Your task to perform on an android device: change text size in settings app Image 0: 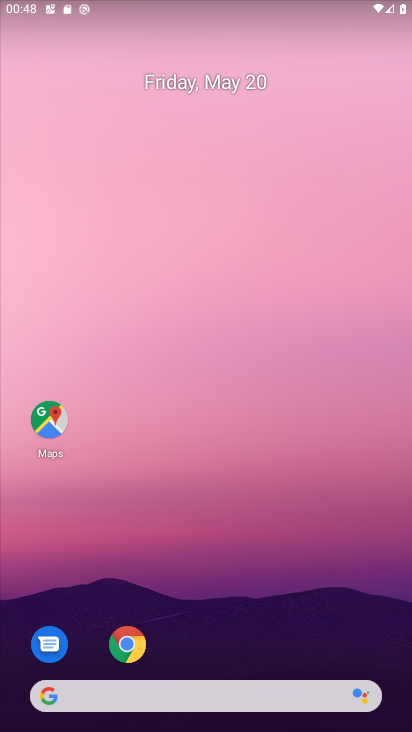
Step 0: drag from (178, 674) to (212, 362)
Your task to perform on an android device: change text size in settings app Image 1: 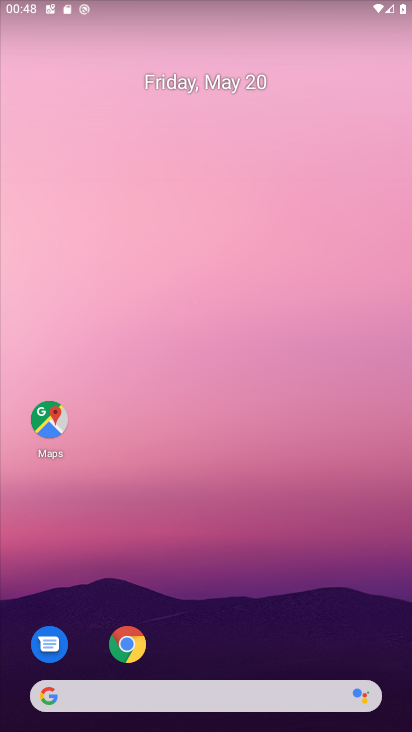
Step 1: drag from (303, 671) to (318, 259)
Your task to perform on an android device: change text size in settings app Image 2: 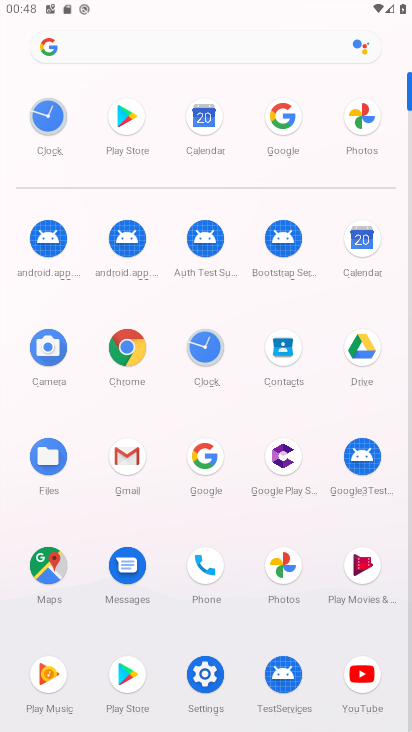
Step 2: click (203, 675)
Your task to perform on an android device: change text size in settings app Image 3: 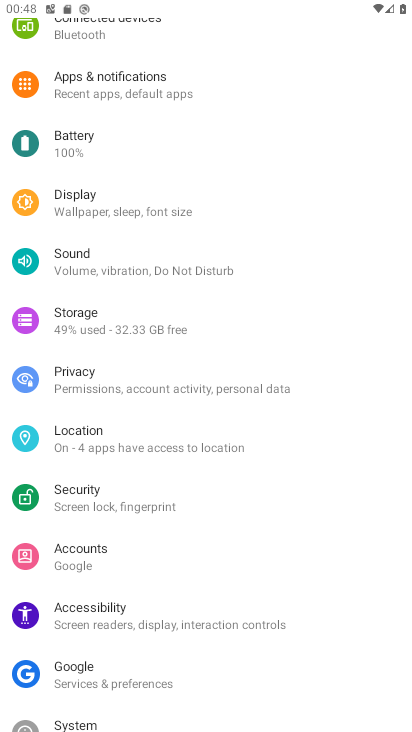
Step 3: click (86, 614)
Your task to perform on an android device: change text size in settings app Image 4: 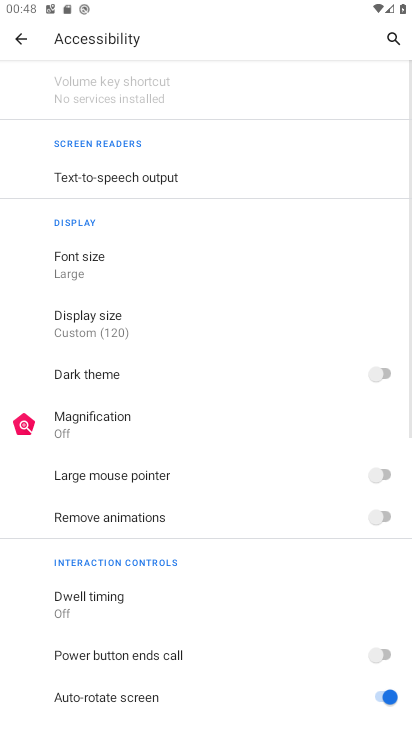
Step 4: click (85, 274)
Your task to perform on an android device: change text size in settings app Image 5: 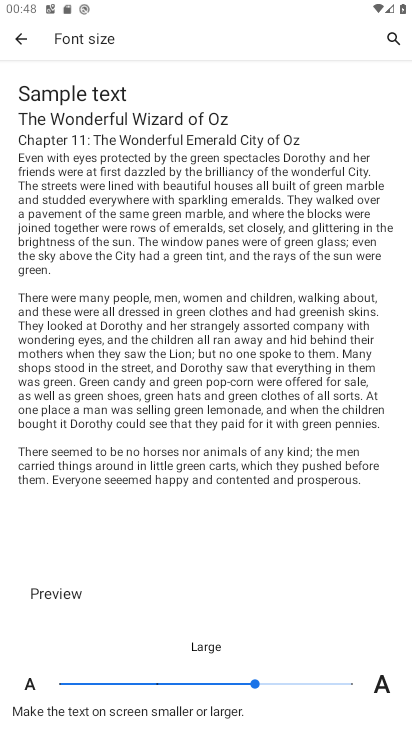
Step 5: click (227, 683)
Your task to perform on an android device: change text size in settings app Image 6: 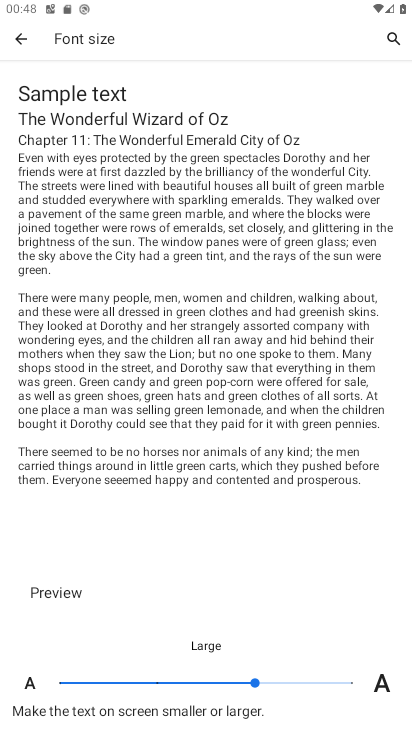
Step 6: click (253, 685)
Your task to perform on an android device: change text size in settings app Image 7: 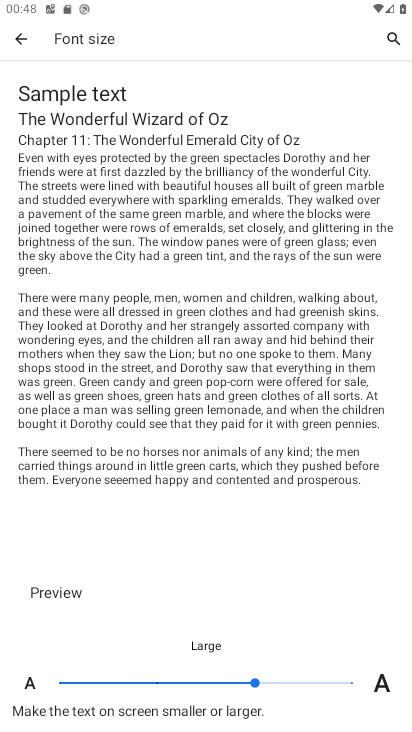
Step 7: click (262, 682)
Your task to perform on an android device: change text size in settings app Image 8: 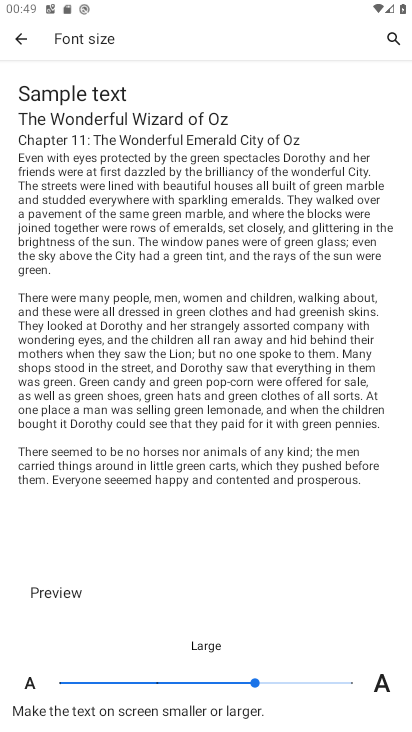
Step 8: click (232, 683)
Your task to perform on an android device: change text size in settings app Image 9: 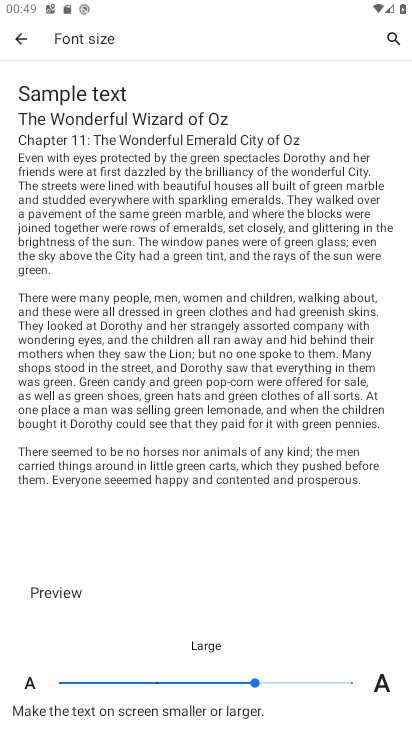
Step 9: click (159, 679)
Your task to perform on an android device: change text size in settings app Image 10: 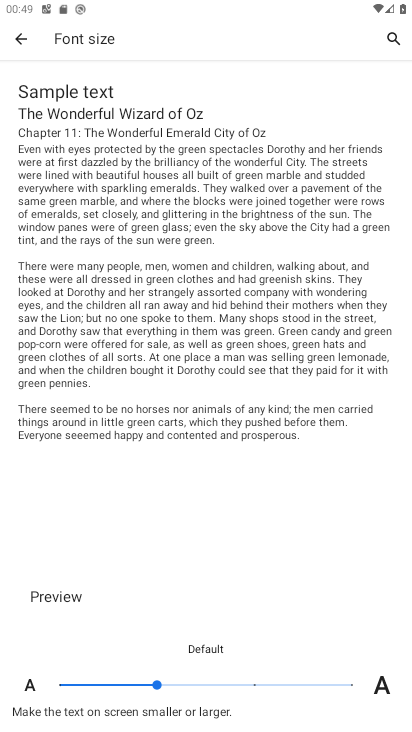
Step 10: task complete